Your task to perform on an android device: find snoozed emails in the gmail app Image 0: 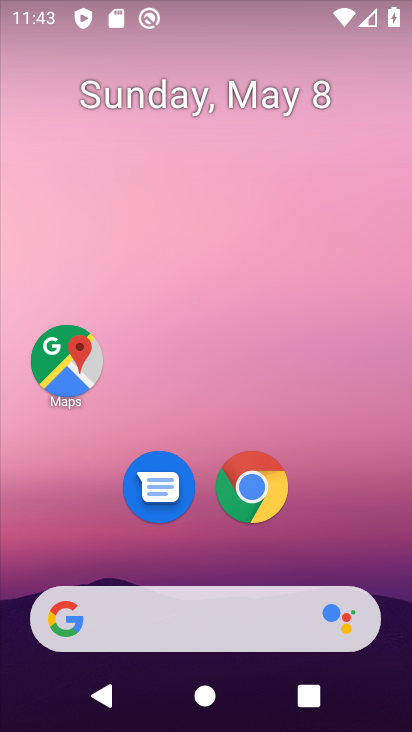
Step 0: drag from (323, 548) to (350, 171)
Your task to perform on an android device: find snoozed emails in the gmail app Image 1: 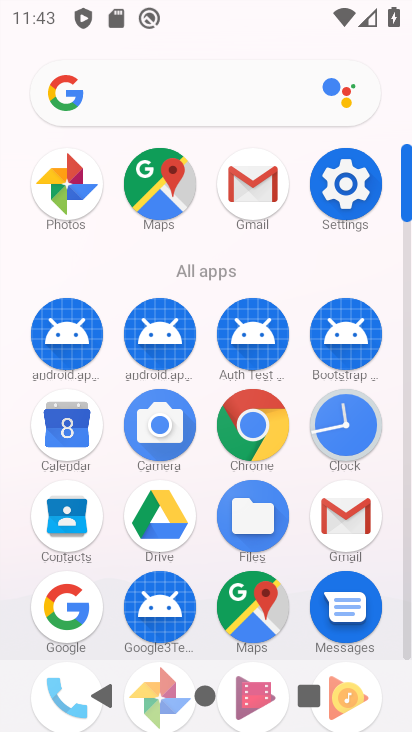
Step 1: click (338, 521)
Your task to perform on an android device: find snoozed emails in the gmail app Image 2: 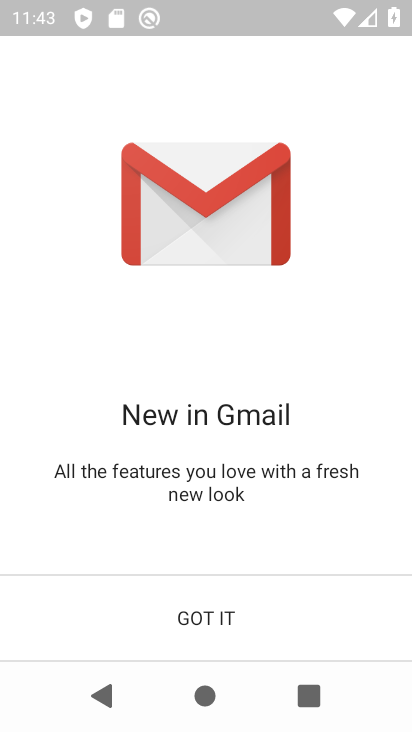
Step 2: click (226, 609)
Your task to perform on an android device: find snoozed emails in the gmail app Image 3: 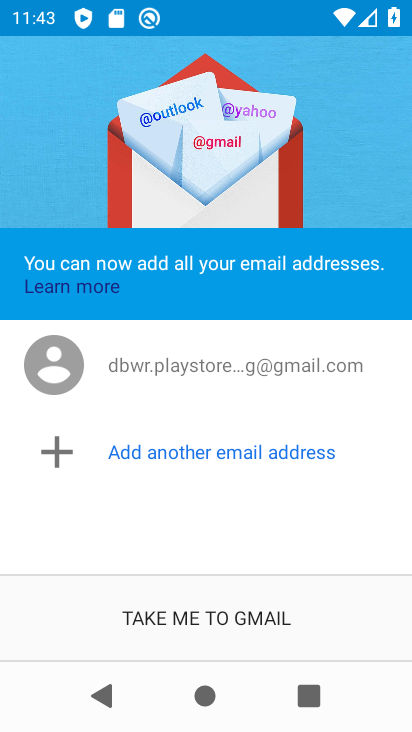
Step 3: click (245, 623)
Your task to perform on an android device: find snoozed emails in the gmail app Image 4: 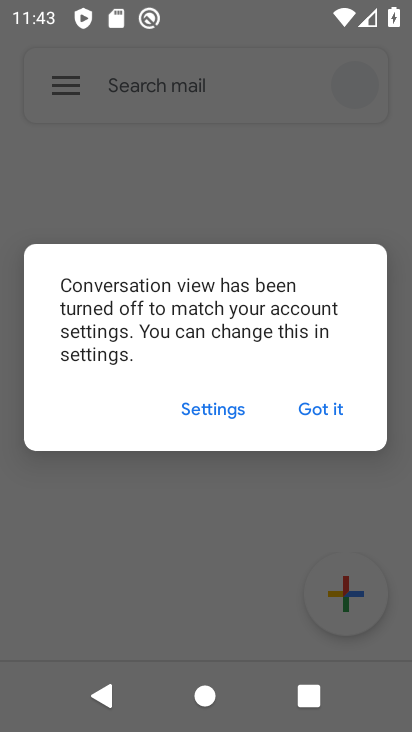
Step 4: click (331, 419)
Your task to perform on an android device: find snoozed emails in the gmail app Image 5: 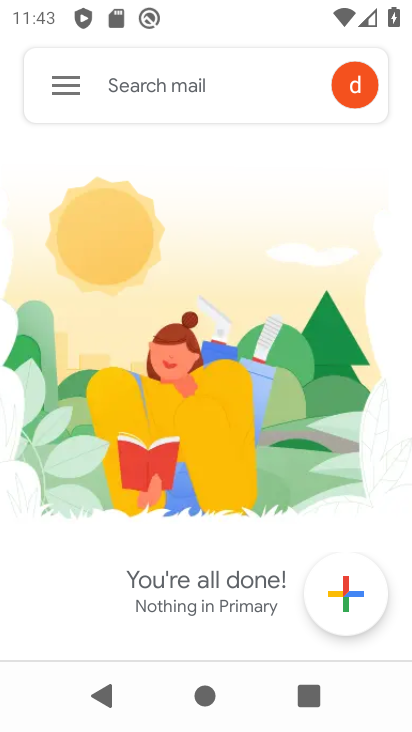
Step 5: click (53, 85)
Your task to perform on an android device: find snoozed emails in the gmail app Image 6: 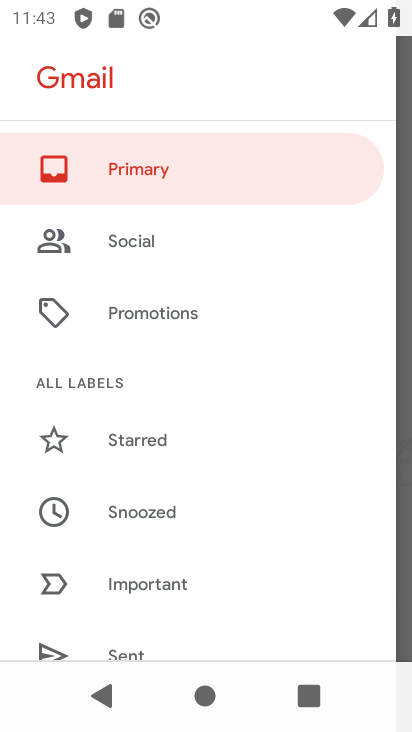
Step 6: click (181, 514)
Your task to perform on an android device: find snoozed emails in the gmail app Image 7: 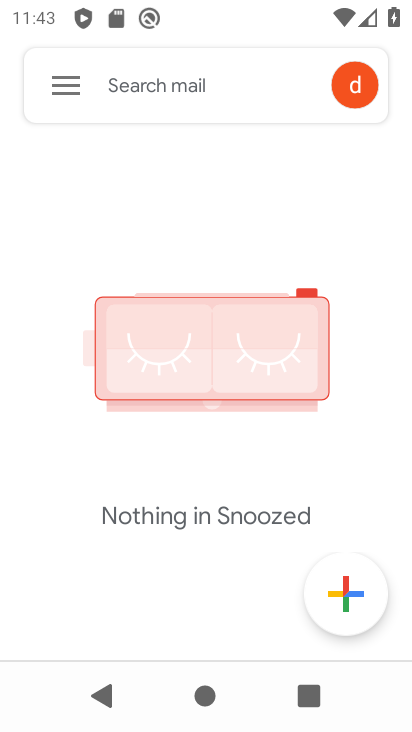
Step 7: task complete